Your task to perform on an android device: turn on sleep mode Image 0: 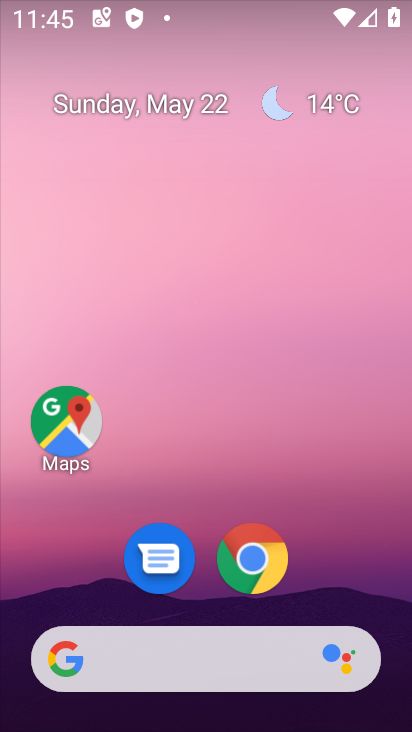
Step 0: drag from (359, 591) to (404, 215)
Your task to perform on an android device: turn on sleep mode Image 1: 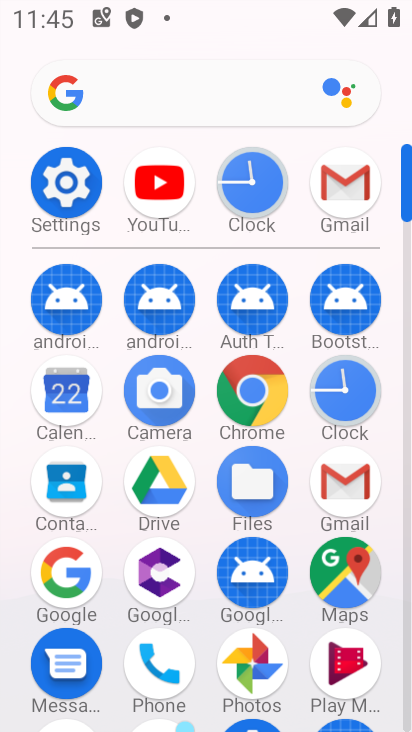
Step 1: click (63, 197)
Your task to perform on an android device: turn on sleep mode Image 2: 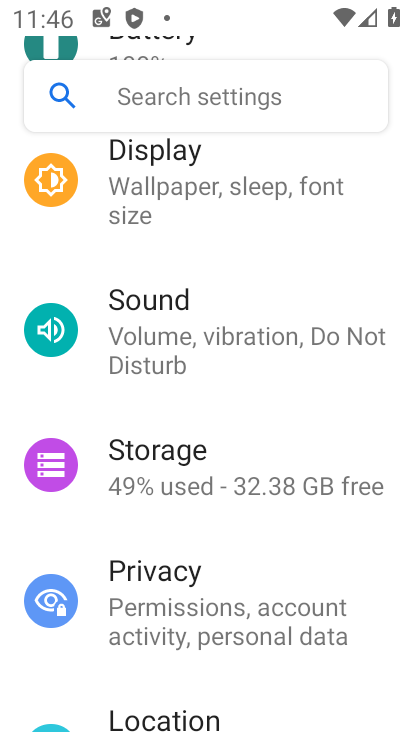
Step 2: click (173, 193)
Your task to perform on an android device: turn on sleep mode Image 3: 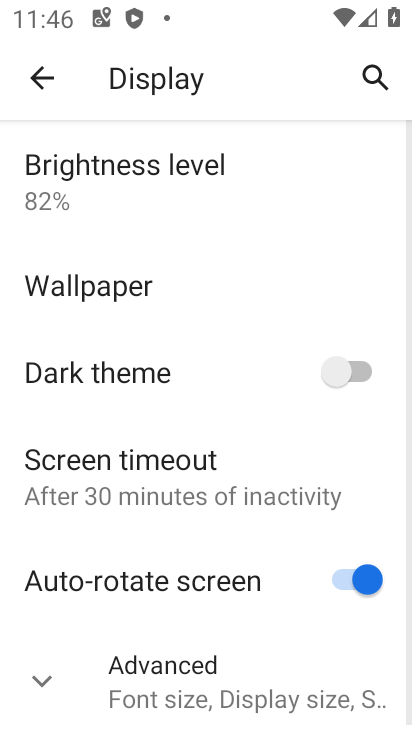
Step 3: drag from (184, 554) to (206, 193)
Your task to perform on an android device: turn on sleep mode Image 4: 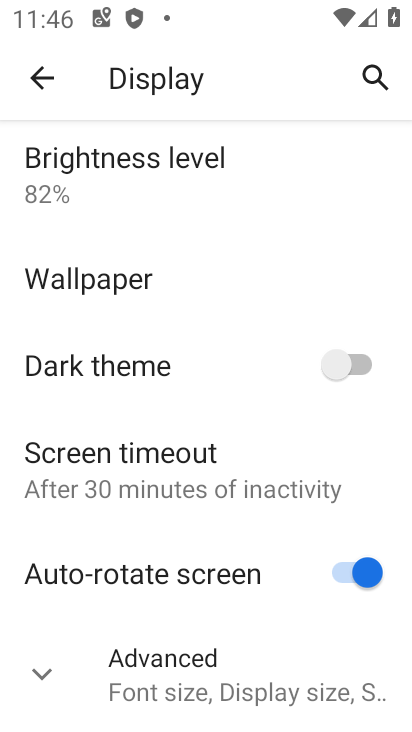
Step 4: click (46, 683)
Your task to perform on an android device: turn on sleep mode Image 5: 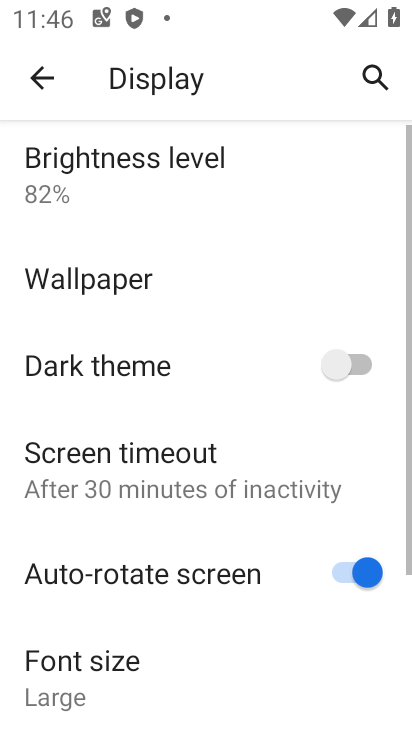
Step 5: task complete